Your task to perform on an android device: find which apps use the phone's location Image 0: 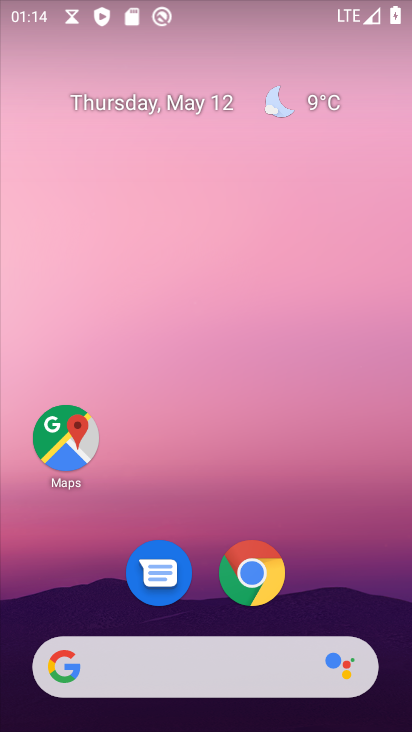
Step 0: drag from (319, 505) to (346, 95)
Your task to perform on an android device: find which apps use the phone's location Image 1: 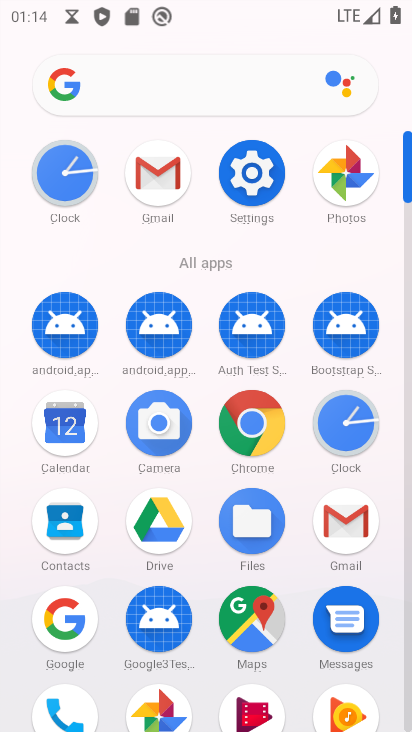
Step 1: click (248, 211)
Your task to perform on an android device: find which apps use the phone's location Image 2: 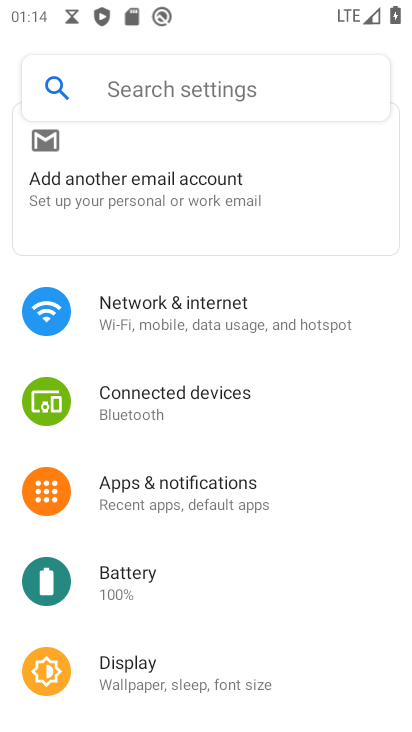
Step 2: drag from (181, 621) to (304, 164)
Your task to perform on an android device: find which apps use the phone's location Image 3: 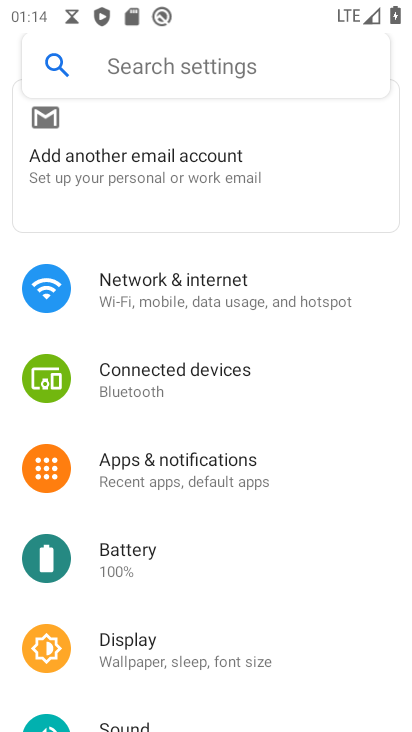
Step 3: drag from (216, 618) to (311, 0)
Your task to perform on an android device: find which apps use the phone's location Image 4: 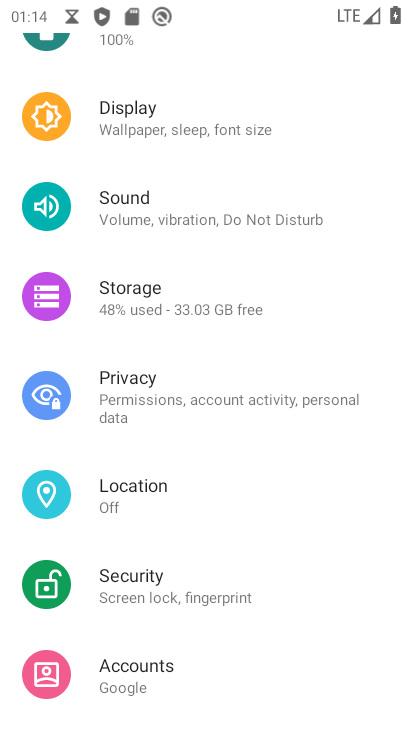
Step 4: click (179, 502)
Your task to perform on an android device: find which apps use the phone's location Image 5: 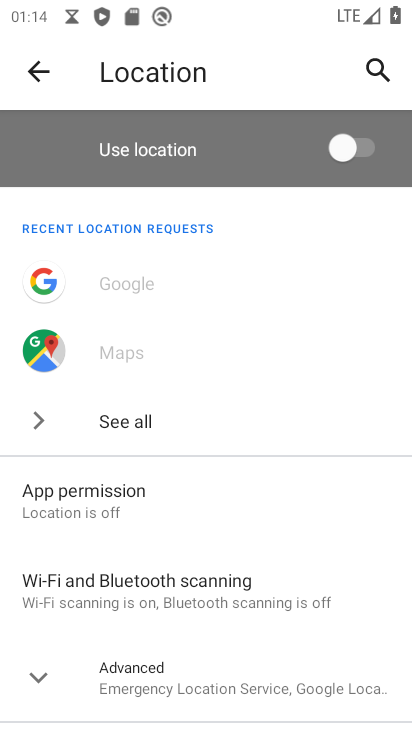
Step 5: click (162, 509)
Your task to perform on an android device: find which apps use the phone's location Image 6: 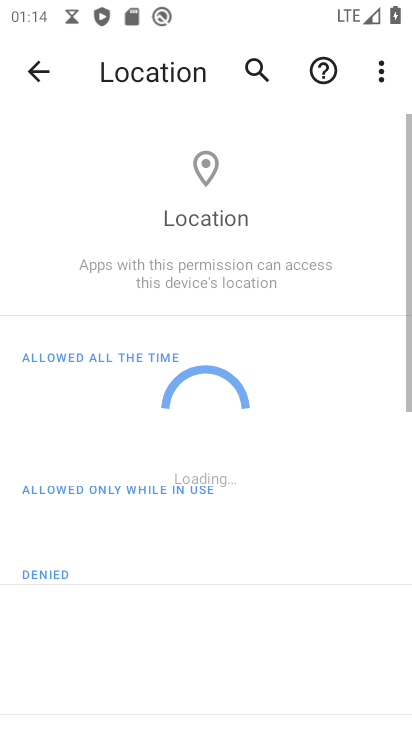
Step 6: task complete